Your task to perform on an android device: Go to network settings Image 0: 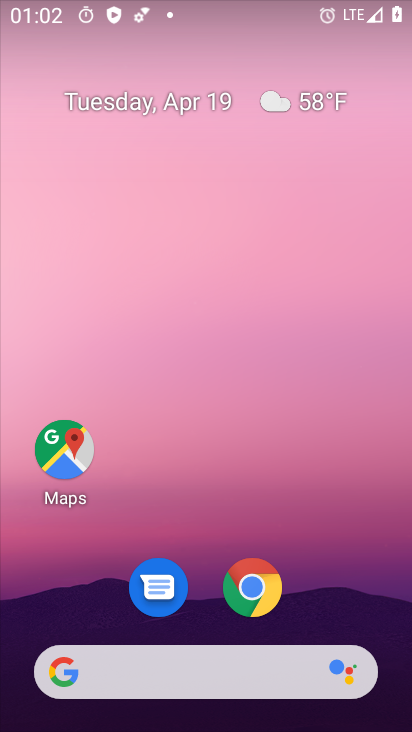
Step 0: drag from (348, 594) to (352, 138)
Your task to perform on an android device: Go to network settings Image 1: 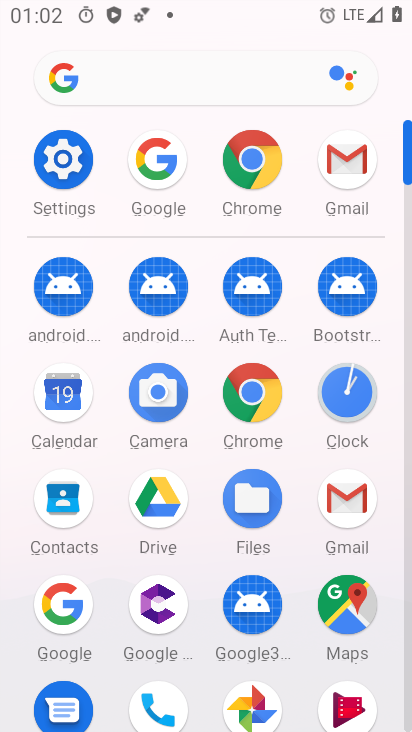
Step 1: click (56, 174)
Your task to perform on an android device: Go to network settings Image 2: 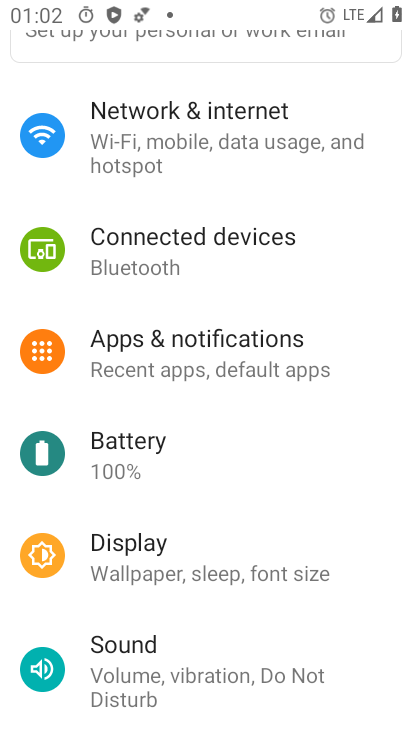
Step 2: click (174, 152)
Your task to perform on an android device: Go to network settings Image 3: 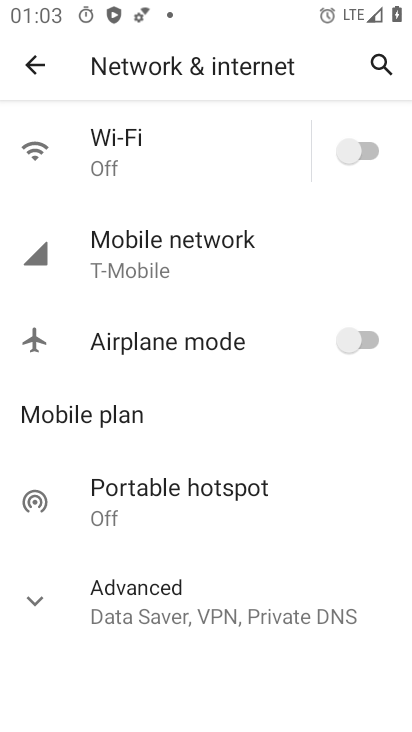
Step 3: task complete